Your task to perform on an android device: toggle improve location accuracy Image 0: 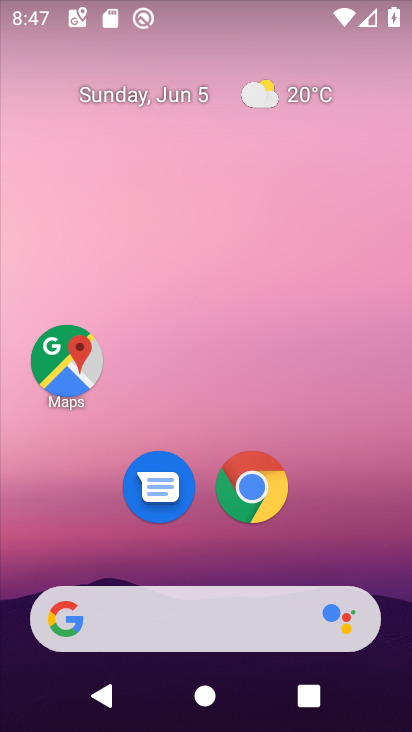
Step 0: drag from (298, 545) to (300, 162)
Your task to perform on an android device: toggle improve location accuracy Image 1: 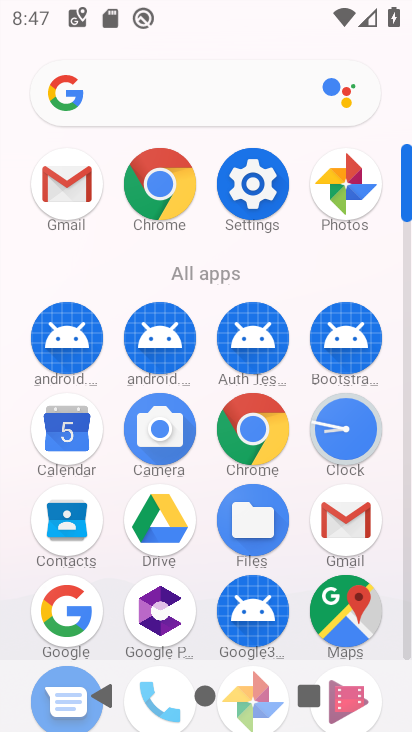
Step 1: click (255, 185)
Your task to perform on an android device: toggle improve location accuracy Image 2: 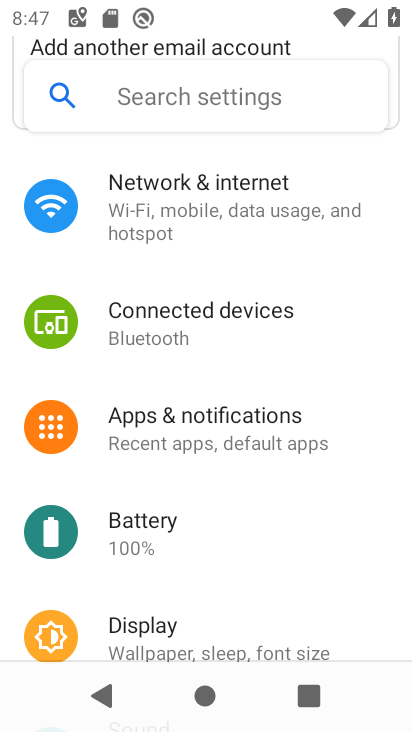
Step 2: drag from (214, 581) to (248, 291)
Your task to perform on an android device: toggle improve location accuracy Image 3: 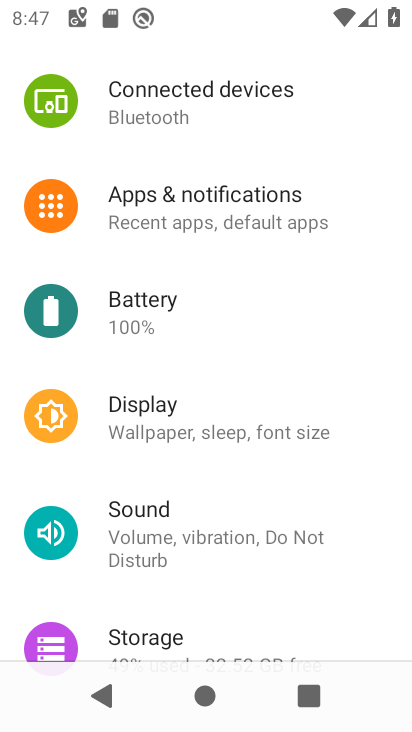
Step 3: drag from (188, 604) to (241, 246)
Your task to perform on an android device: toggle improve location accuracy Image 4: 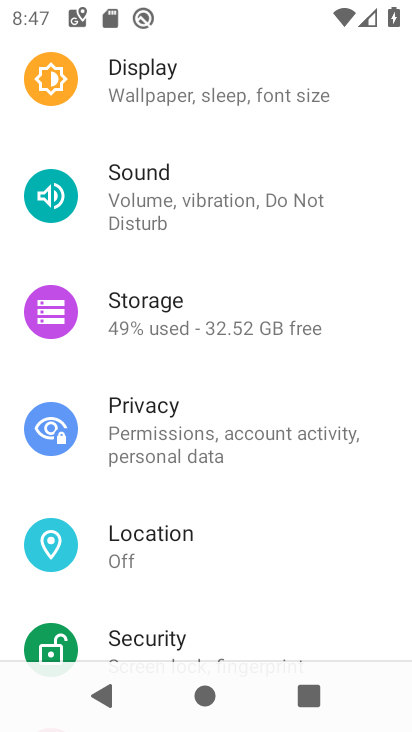
Step 4: click (176, 536)
Your task to perform on an android device: toggle improve location accuracy Image 5: 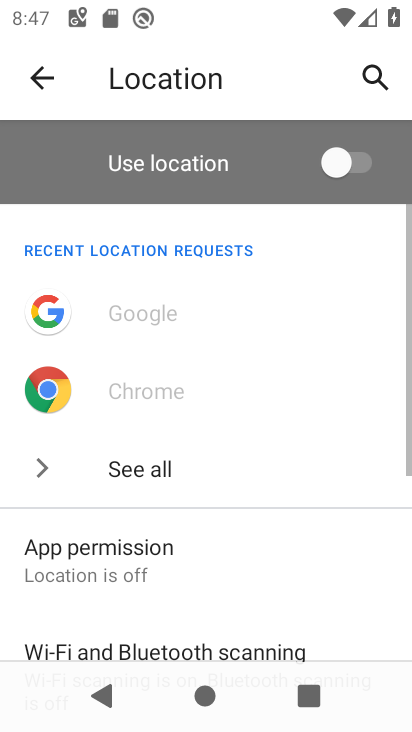
Step 5: drag from (219, 612) to (225, 290)
Your task to perform on an android device: toggle improve location accuracy Image 6: 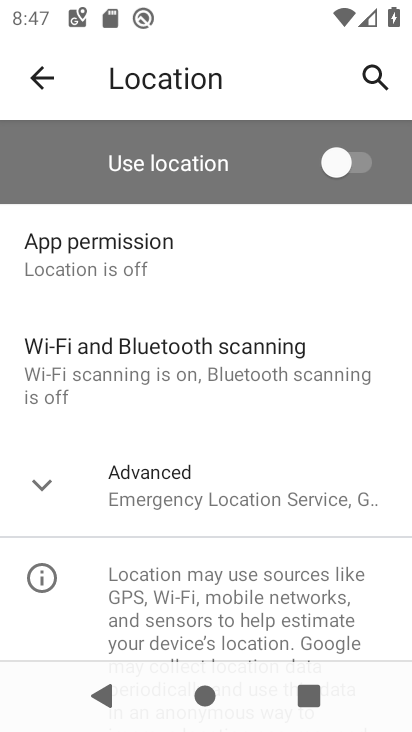
Step 6: click (157, 497)
Your task to perform on an android device: toggle improve location accuracy Image 7: 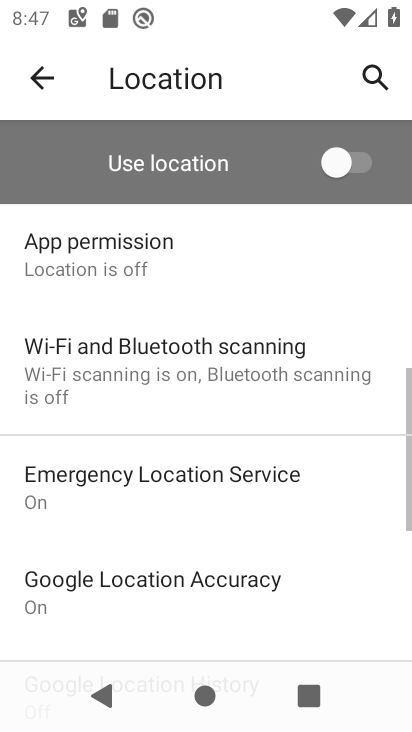
Step 7: click (146, 589)
Your task to perform on an android device: toggle improve location accuracy Image 8: 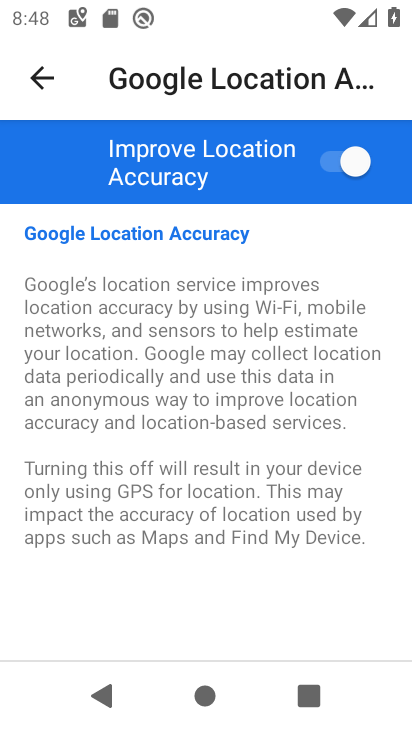
Step 8: click (337, 151)
Your task to perform on an android device: toggle improve location accuracy Image 9: 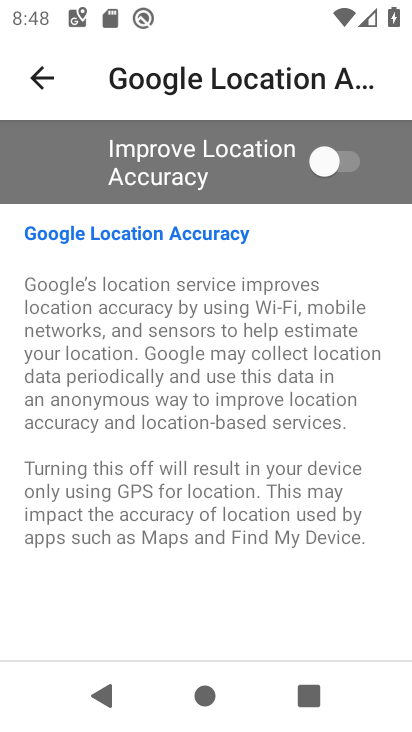
Step 9: task complete